Your task to perform on an android device: turn on wifi Image 0: 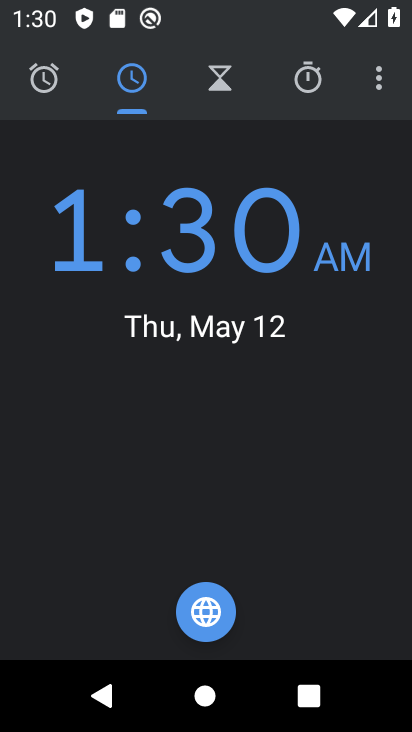
Step 0: press home button
Your task to perform on an android device: turn on wifi Image 1: 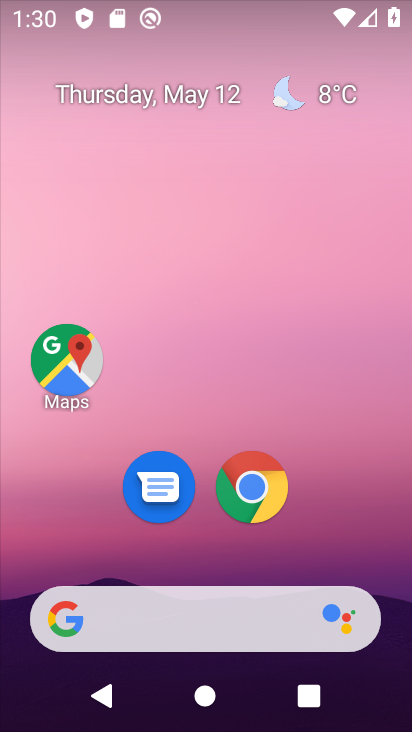
Step 1: drag from (287, 550) to (317, 80)
Your task to perform on an android device: turn on wifi Image 2: 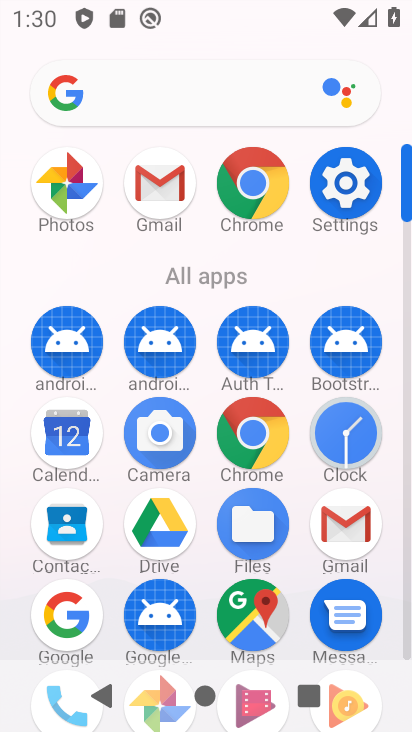
Step 2: click (349, 169)
Your task to perform on an android device: turn on wifi Image 3: 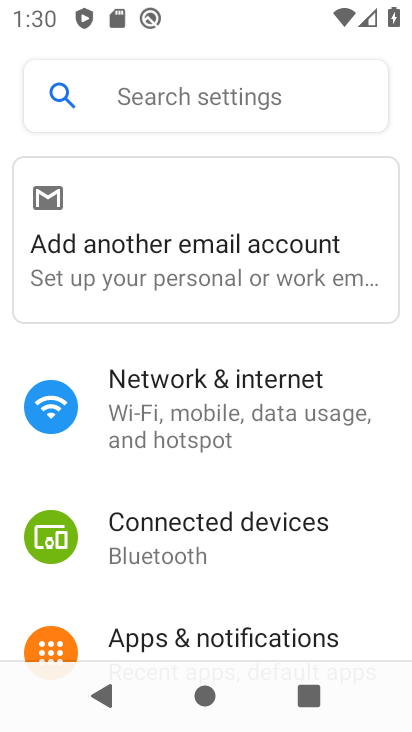
Step 3: click (129, 409)
Your task to perform on an android device: turn on wifi Image 4: 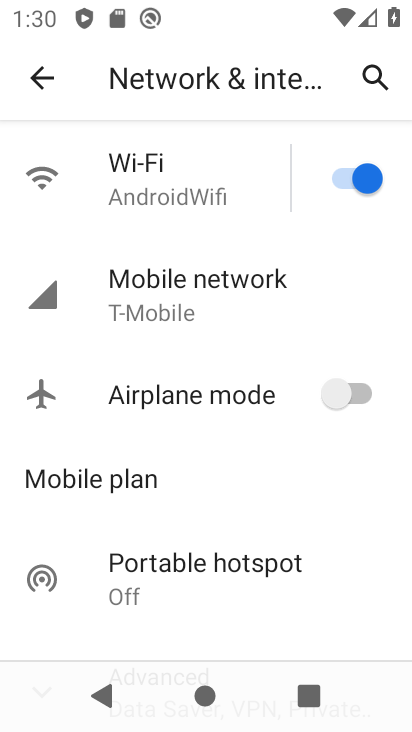
Step 4: task complete